Your task to perform on an android device: Open Reddit.com Image 0: 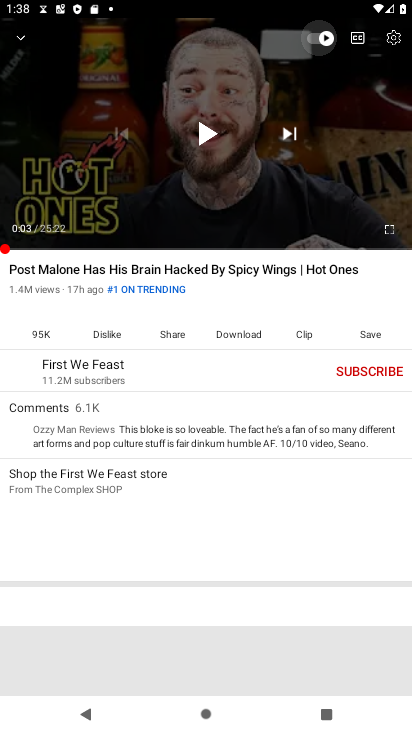
Step 0: press home button
Your task to perform on an android device: Open Reddit.com Image 1: 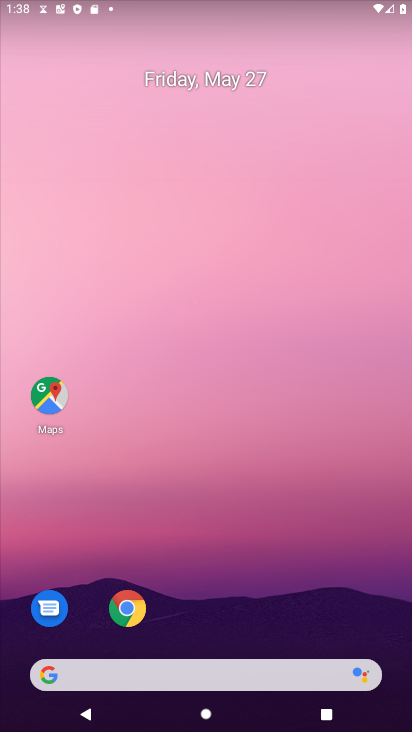
Step 1: drag from (76, 10) to (184, 5)
Your task to perform on an android device: Open Reddit.com Image 2: 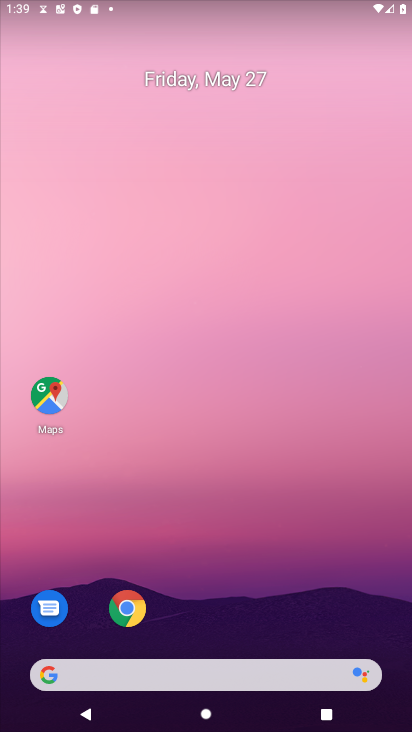
Step 2: click (127, 595)
Your task to perform on an android device: Open Reddit.com Image 3: 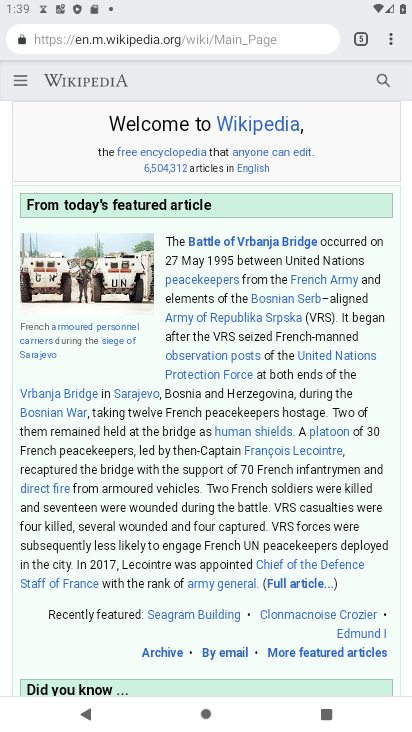
Step 3: click (362, 37)
Your task to perform on an android device: Open Reddit.com Image 4: 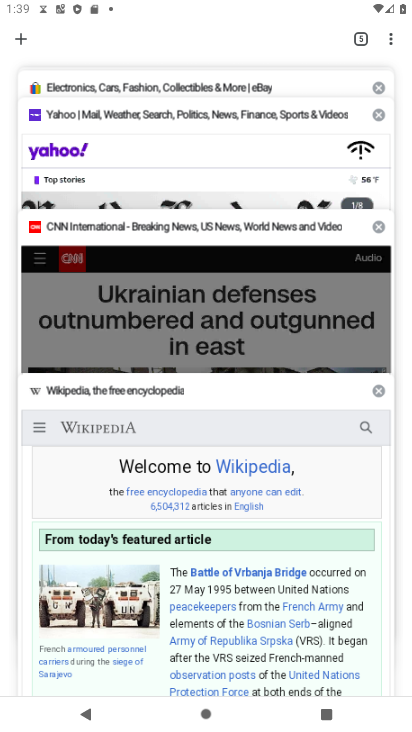
Step 4: drag from (114, 204) to (108, 617)
Your task to perform on an android device: Open Reddit.com Image 5: 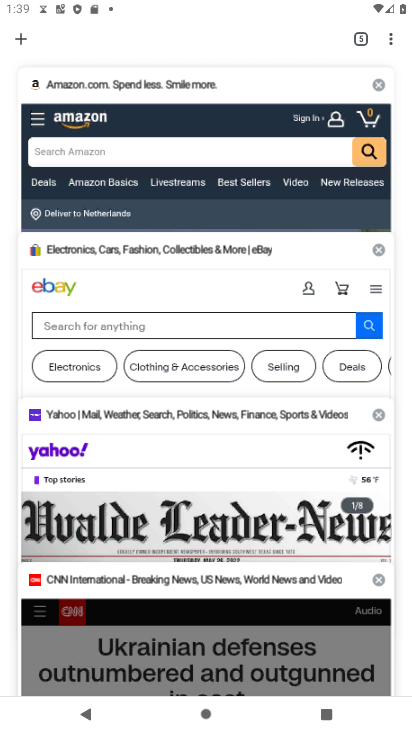
Step 5: click (19, 38)
Your task to perform on an android device: Open Reddit.com Image 6: 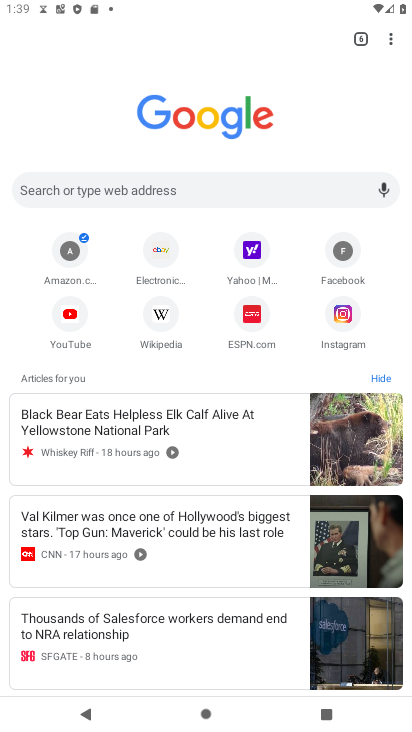
Step 6: click (108, 191)
Your task to perform on an android device: Open Reddit.com Image 7: 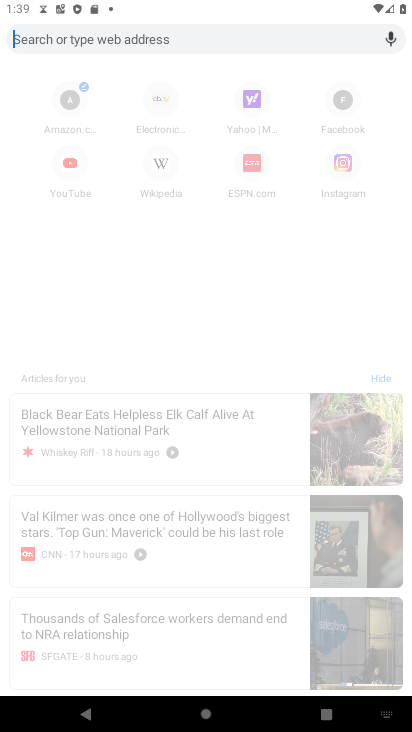
Step 7: type "reddit"
Your task to perform on an android device: Open Reddit.com Image 8: 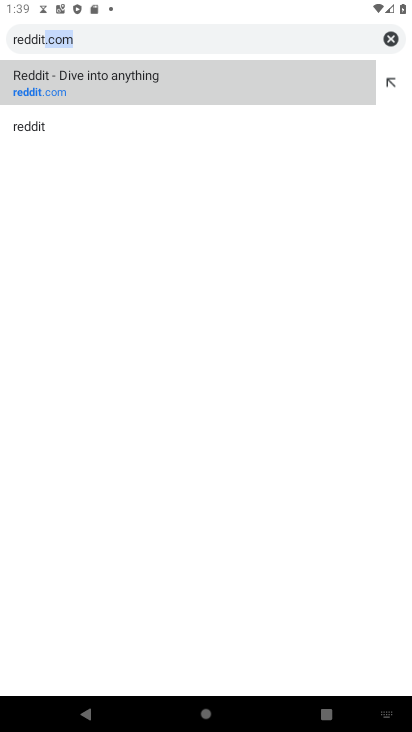
Step 8: click (64, 81)
Your task to perform on an android device: Open Reddit.com Image 9: 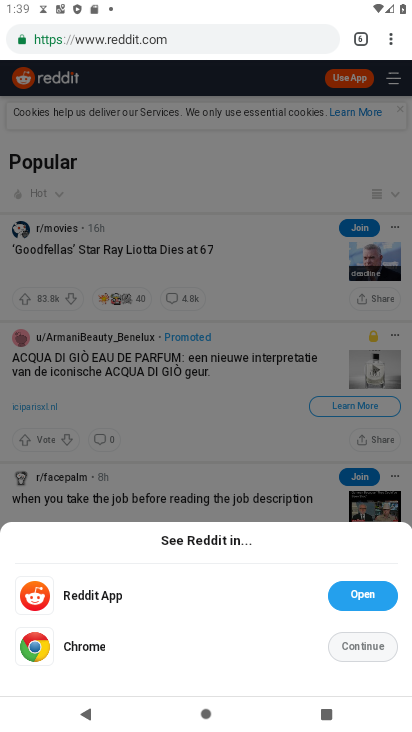
Step 9: task complete